Your task to perform on an android device: Play the new Taylor Swift video on YouTube Image 0: 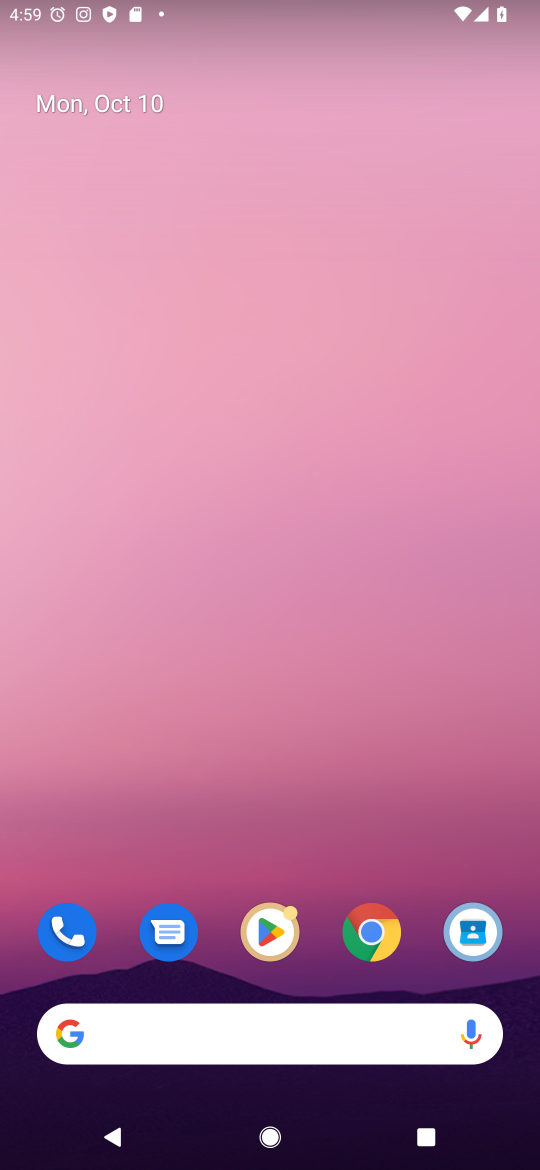
Step 0: press home button
Your task to perform on an android device: Play the new Taylor Swift video on YouTube Image 1: 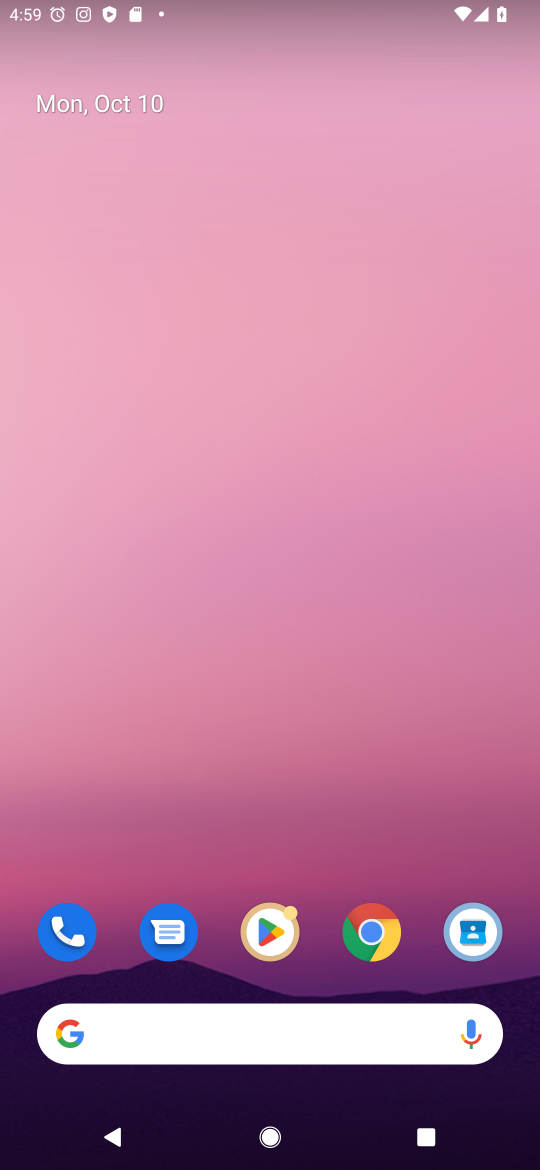
Step 1: drag from (486, 816) to (441, 88)
Your task to perform on an android device: Play the new Taylor Swift video on YouTube Image 2: 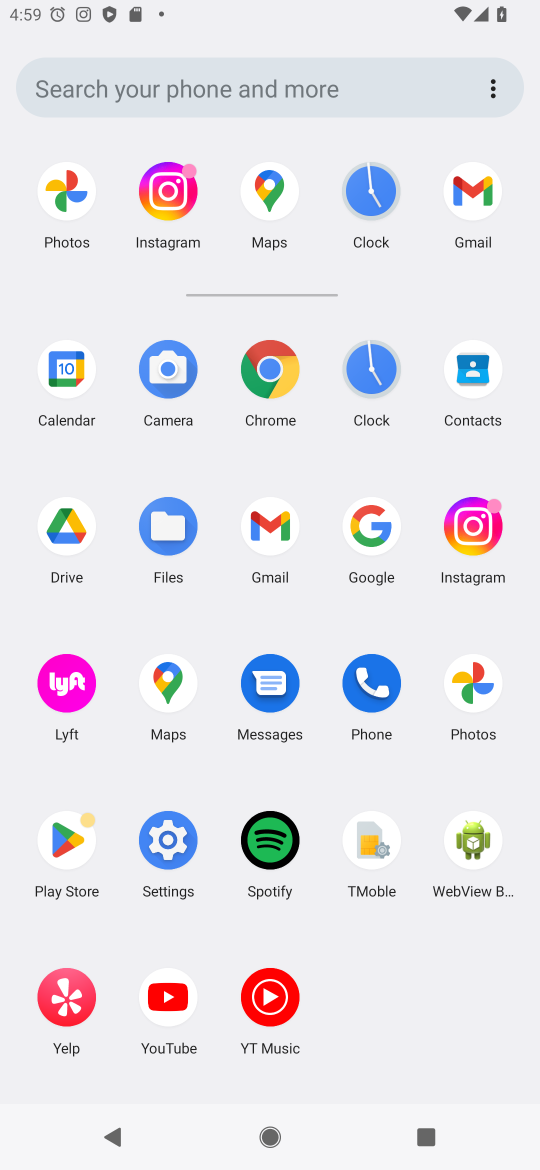
Step 2: click (162, 1006)
Your task to perform on an android device: Play the new Taylor Swift video on YouTube Image 3: 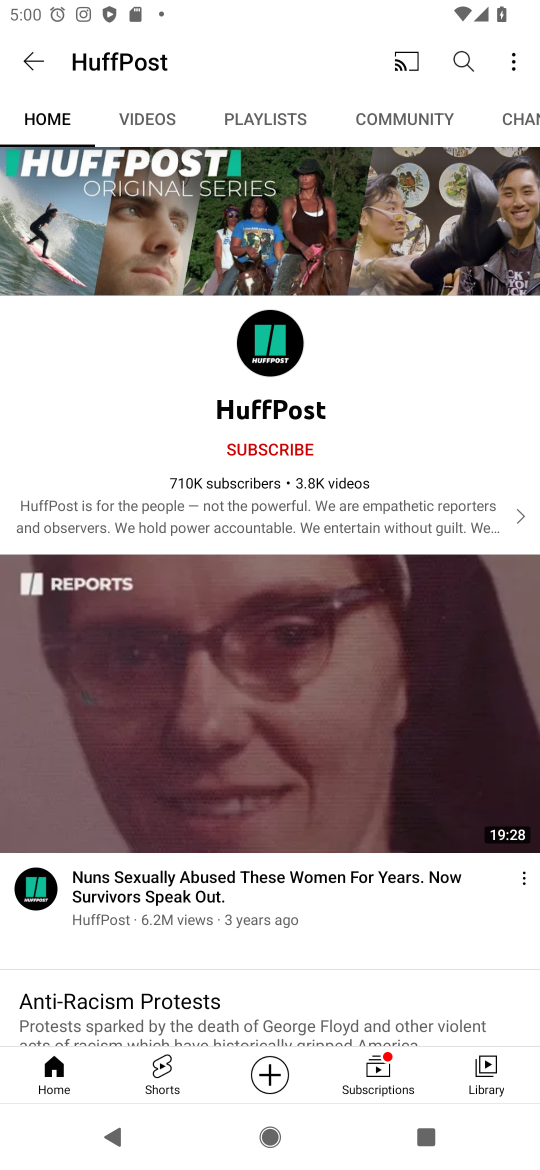
Step 3: click (457, 55)
Your task to perform on an android device: Play the new Taylor Swift video on YouTube Image 4: 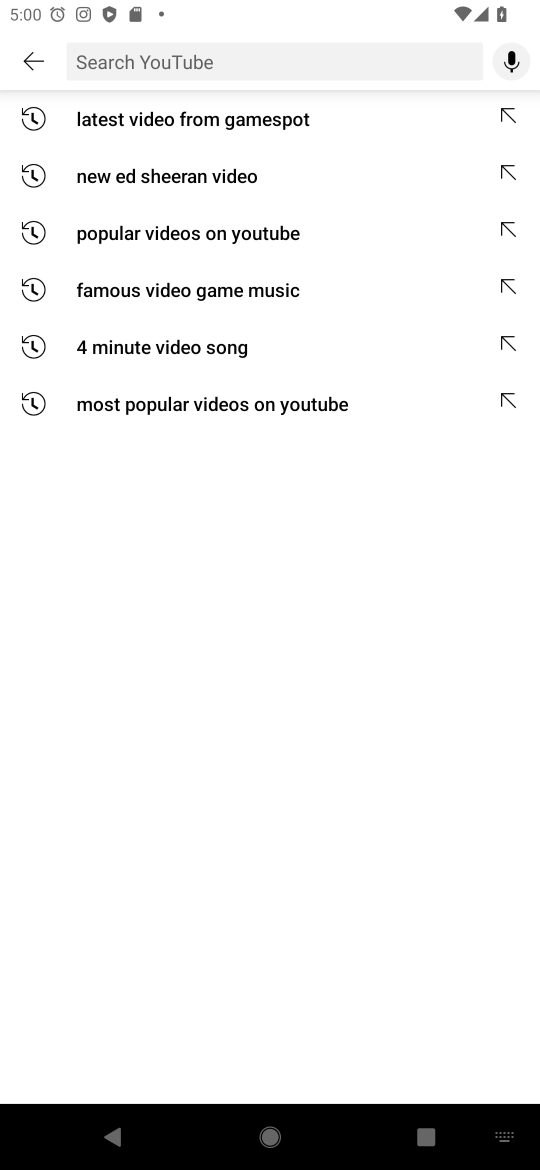
Step 4: type "Taylor Swift video"
Your task to perform on an android device: Play the new Taylor Swift video on YouTube Image 5: 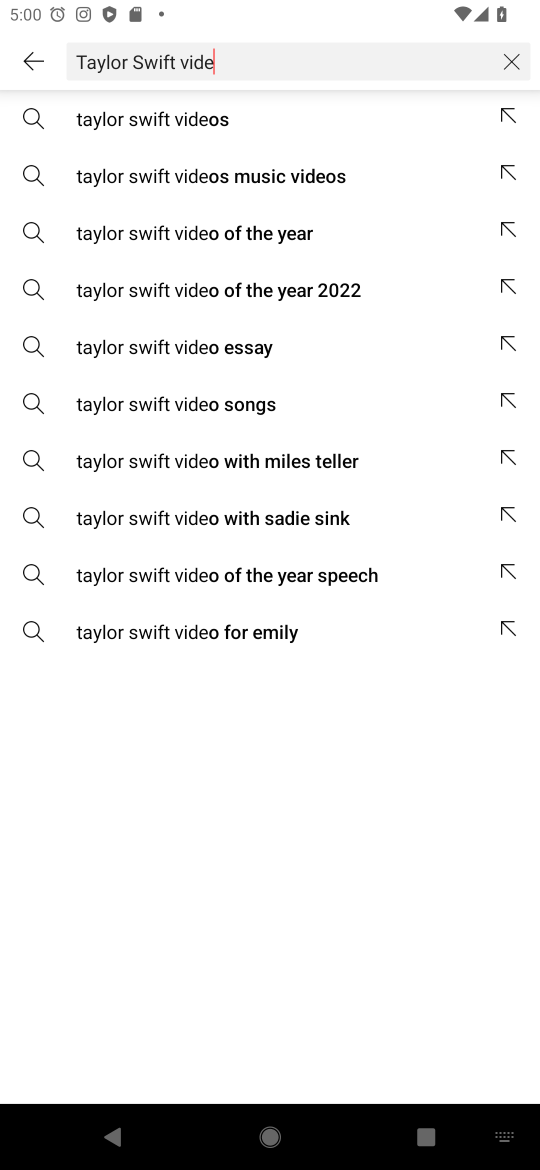
Step 5: press enter
Your task to perform on an android device: Play the new Taylor Swift video on YouTube Image 6: 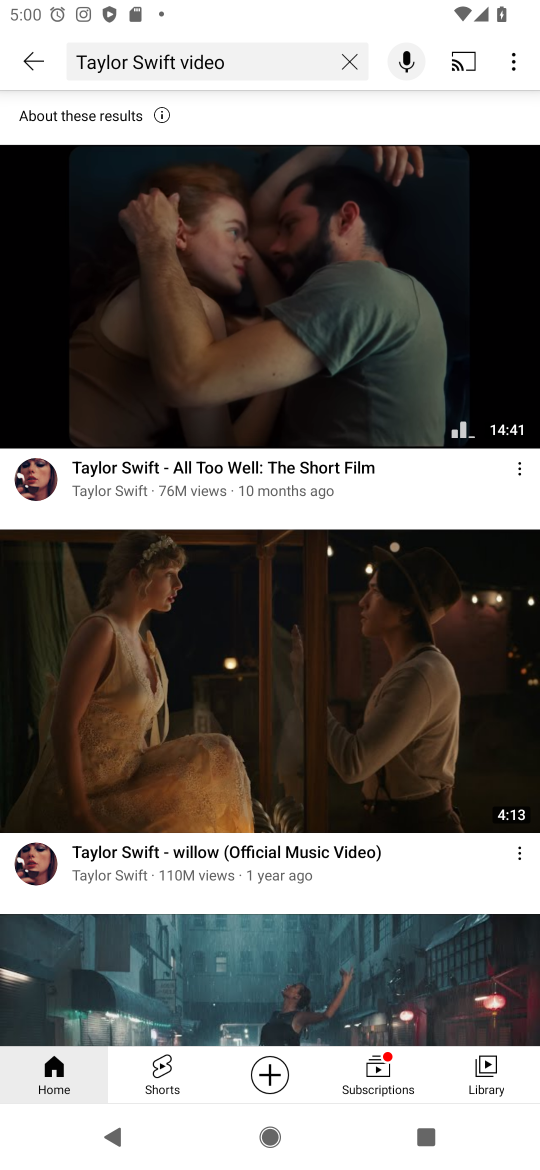
Step 6: click (264, 713)
Your task to perform on an android device: Play the new Taylor Swift video on YouTube Image 7: 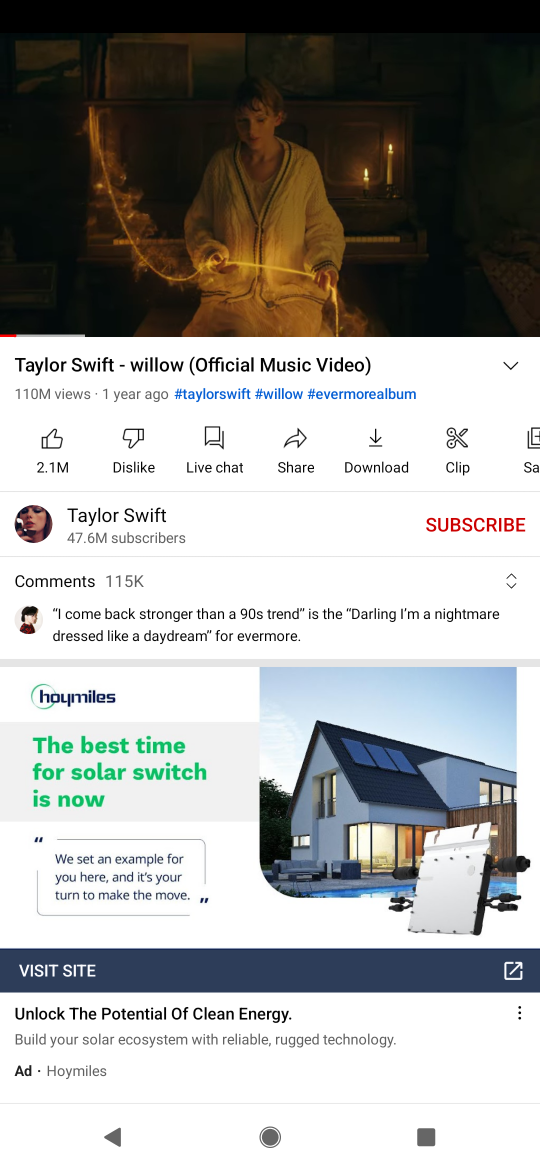
Step 7: task complete